Your task to perform on an android device: toggle location history Image 0: 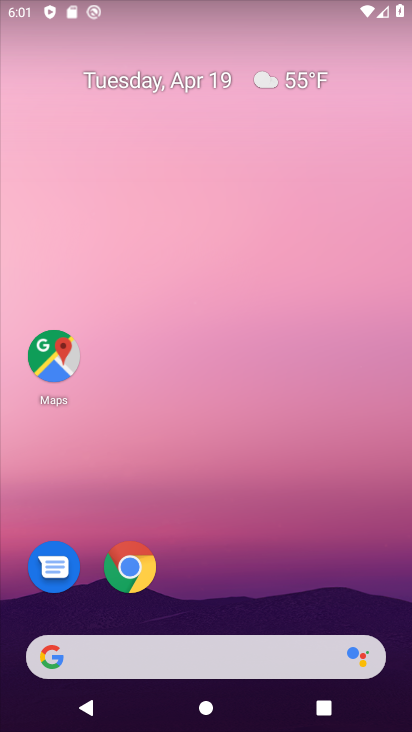
Step 0: drag from (246, 396) to (245, 66)
Your task to perform on an android device: toggle location history Image 1: 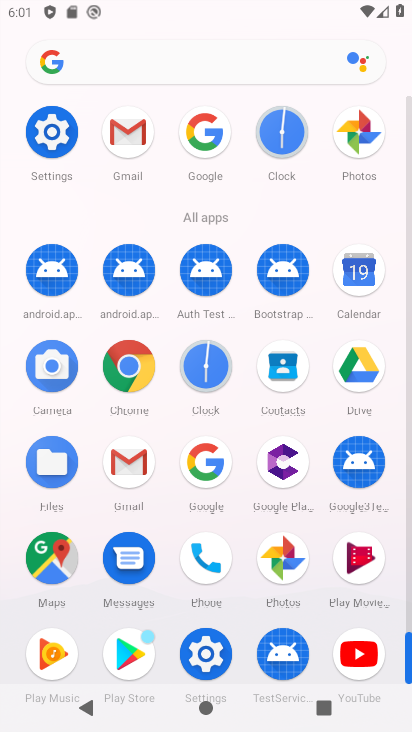
Step 1: click (206, 650)
Your task to perform on an android device: toggle location history Image 2: 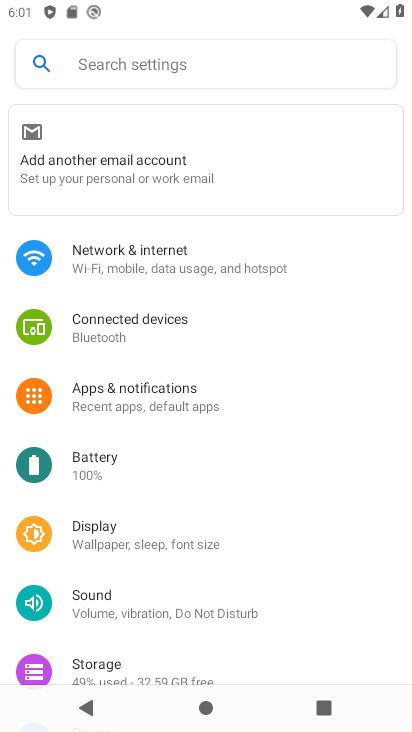
Step 2: drag from (168, 492) to (184, 223)
Your task to perform on an android device: toggle location history Image 3: 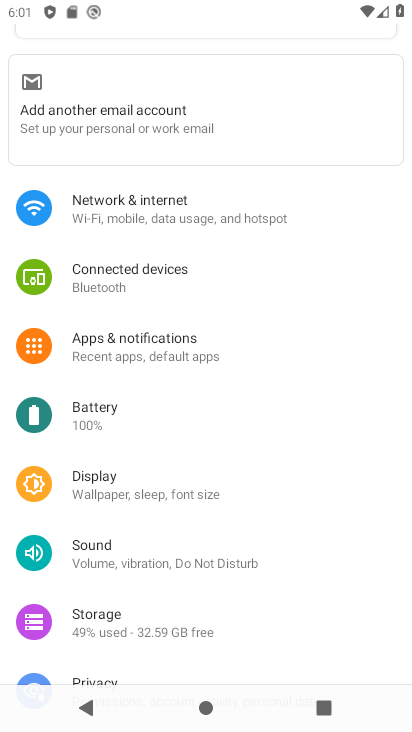
Step 3: drag from (169, 556) to (209, 292)
Your task to perform on an android device: toggle location history Image 4: 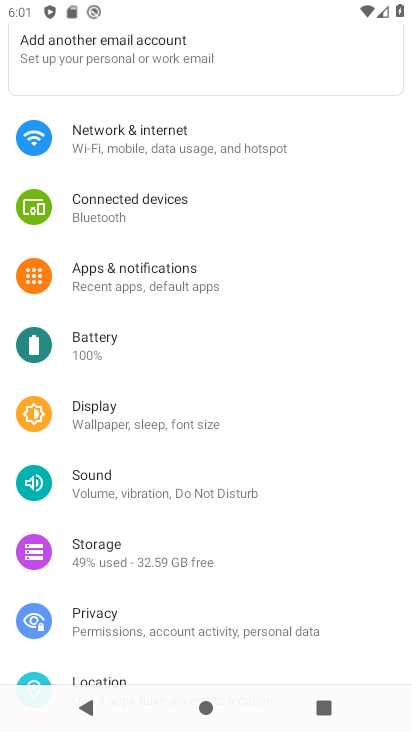
Step 4: click (143, 676)
Your task to perform on an android device: toggle location history Image 5: 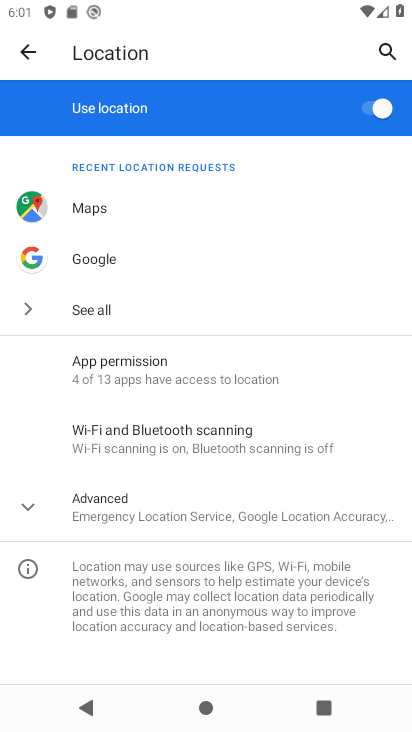
Step 5: click (118, 501)
Your task to perform on an android device: toggle location history Image 6: 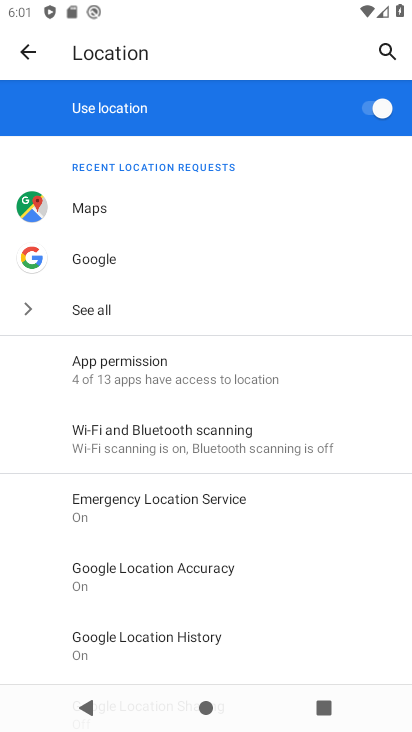
Step 6: click (196, 633)
Your task to perform on an android device: toggle location history Image 7: 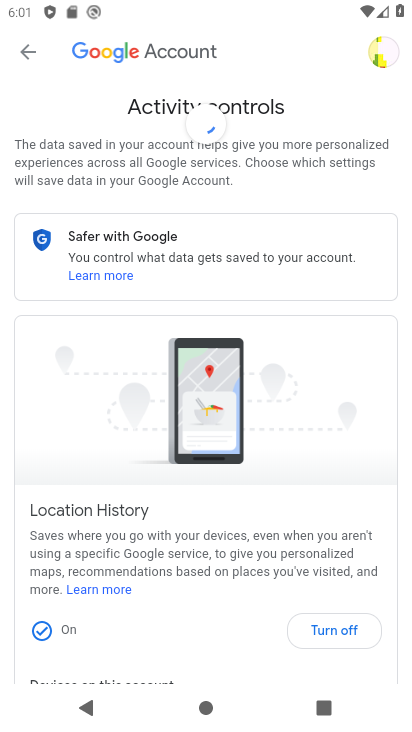
Step 7: click (325, 620)
Your task to perform on an android device: toggle location history Image 8: 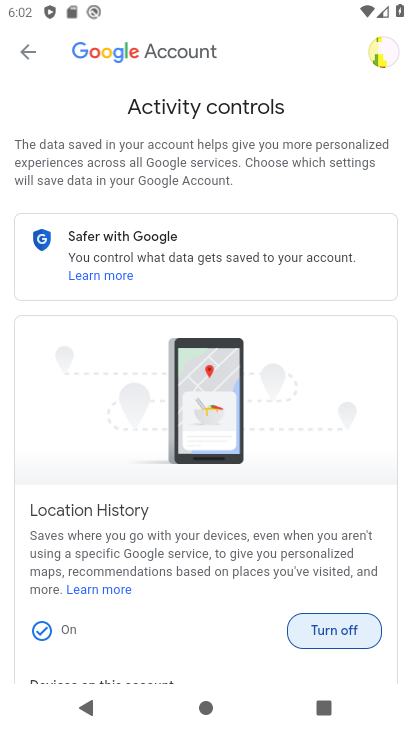
Step 8: click (325, 623)
Your task to perform on an android device: toggle location history Image 9: 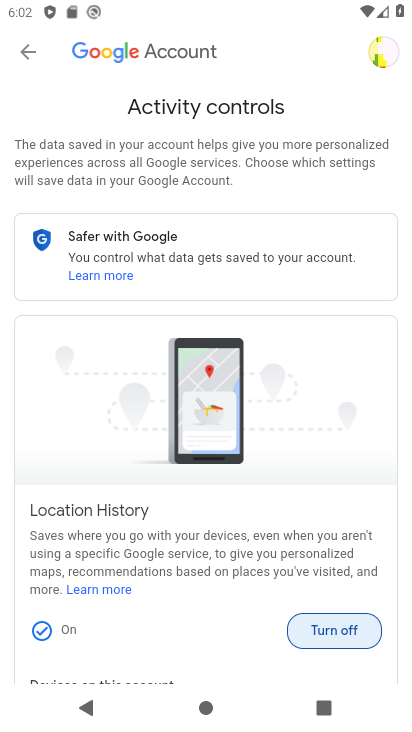
Step 9: click (327, 624)
Your task to perform on an android device: toggle location history Image 10: 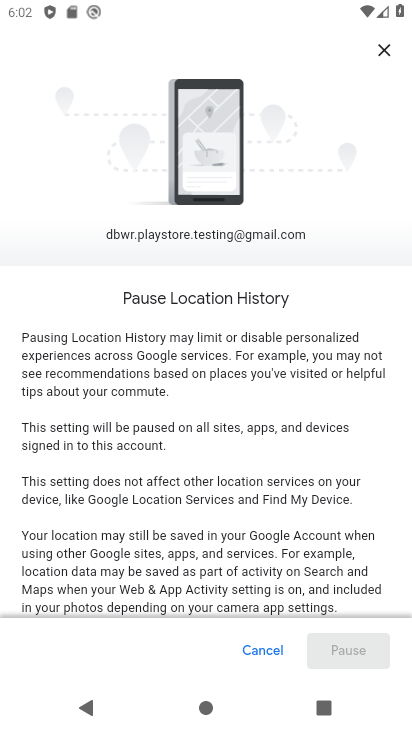
Step 10: drag from (309, 451) to (329, 9)
Your task to perform on an android device: toggle location history Image 11: 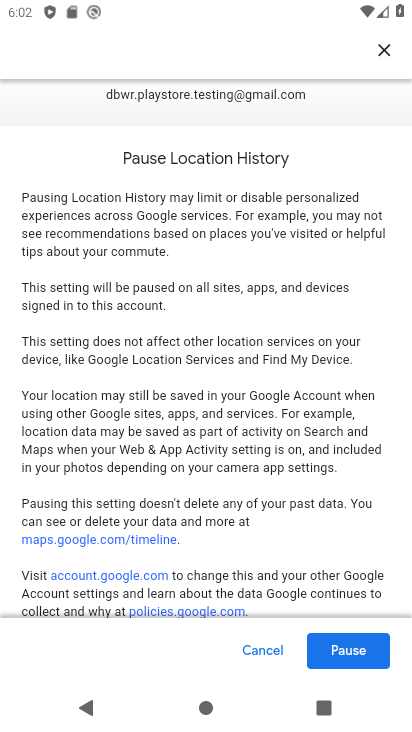
Step 11: drag from (290, 475) to (318, 137)
Your task to perform on an android device: toggle location history Image 12: 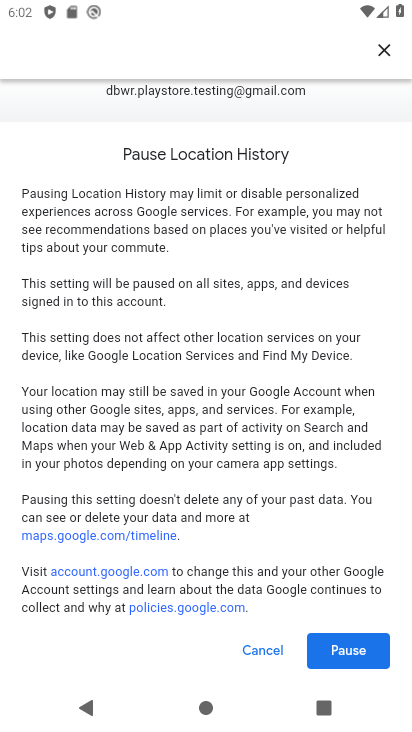
Step 12: click (355, 644)
Your task to perform on an android device: toggle location history Image 13: 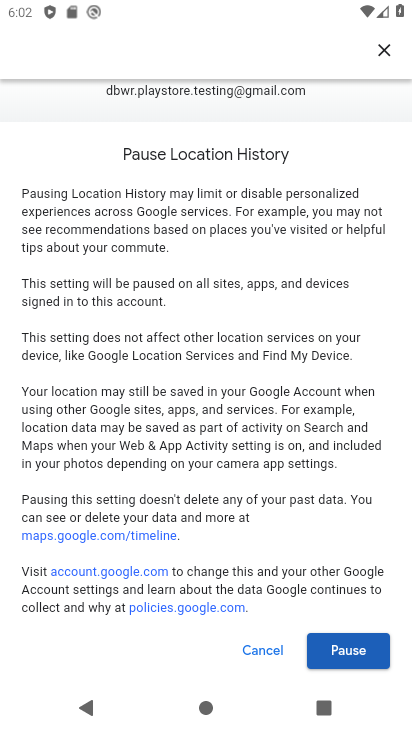
Step 13: click (360, 654)
Your task to perform on an android device: toggle location history Image 14: 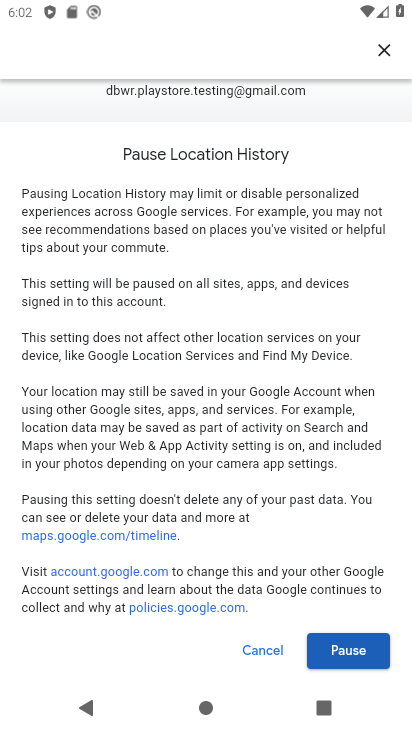
Step 14: click (352, 644)
Your task to perform on an android device: toggle location history Image 15: 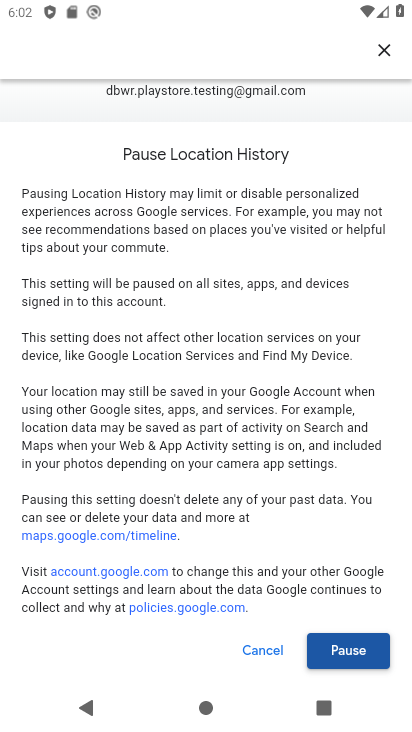
Step 15: click (354, 656)
Your task to perform on an android device: toggle location history Image 16: 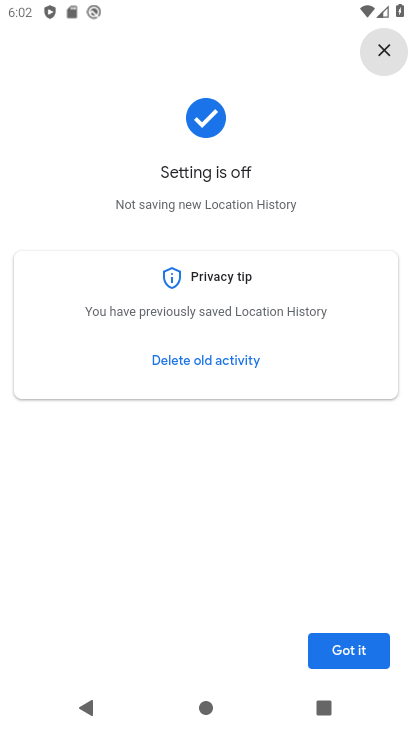
Step 16: click (345, 647)
Your task to perform on an android device: toggle location history Image 17: 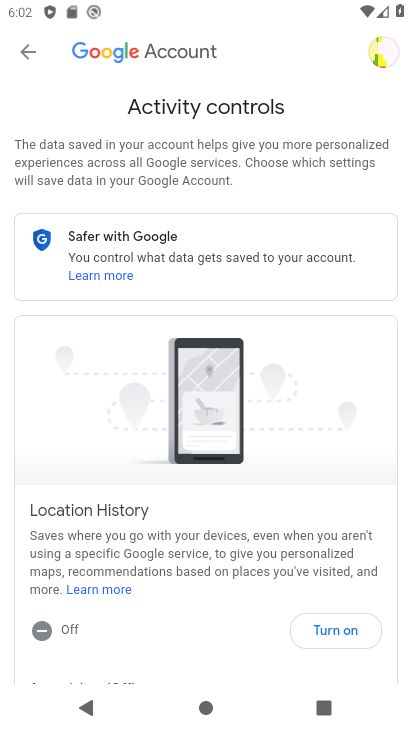
Step 17: task complete